Your task to perform on an android device: Open Maps and search for coffee Image 0: 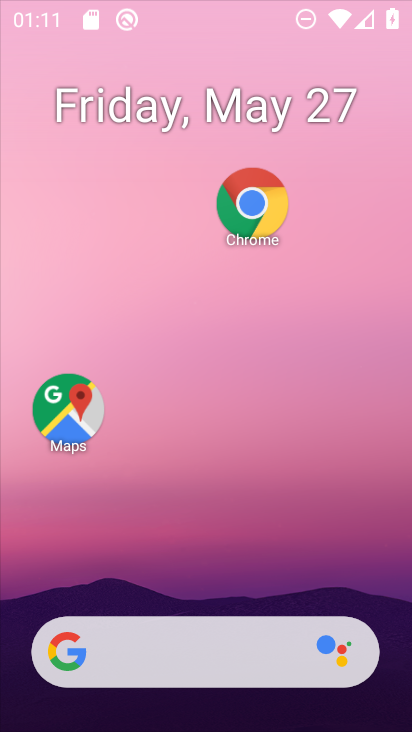
Step 0: click (356, 209)
Your task to perform on an android device: Open Maps and search for coffee Image 1: 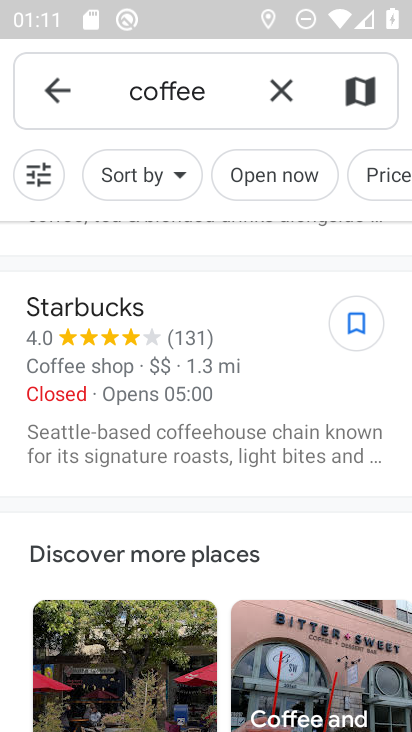
Step 1: task complete